Your task to perform on an android device: What is the news today? Image 0: 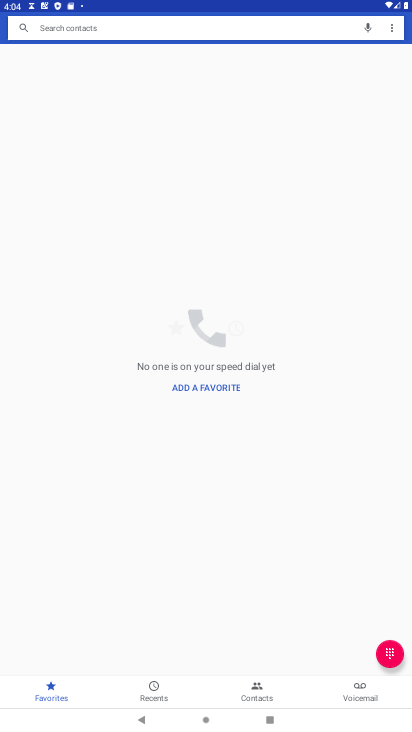
Step 0: press home button
Your task to perform on an android device: What is the news today? Image 1: 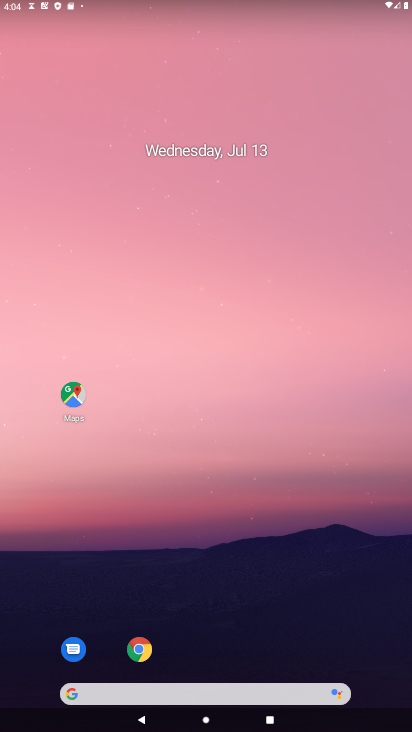
Step 1: task complete